Your task to perform on an android device: change notifications settings Image 0: 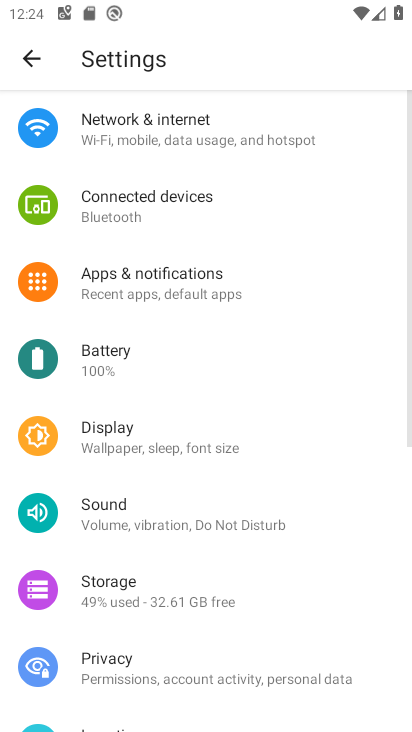
Step 0: press home button
Your task to perform on an android device: change notifications settings Image 1: 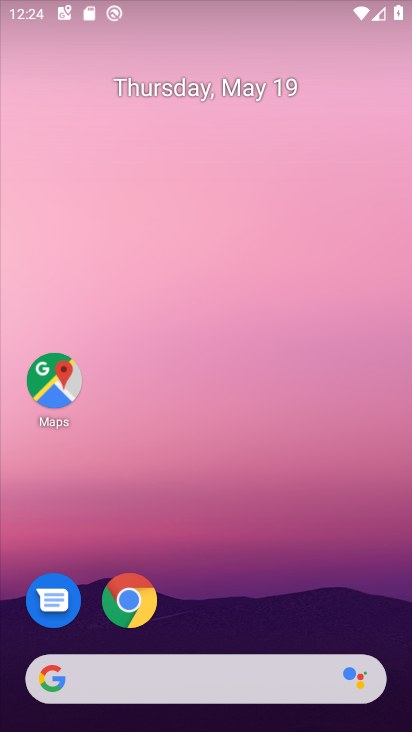
Step 1: drag from (261, 575) to (190, 56)
Your task to perform on an android device: change notifications settings Image 2: 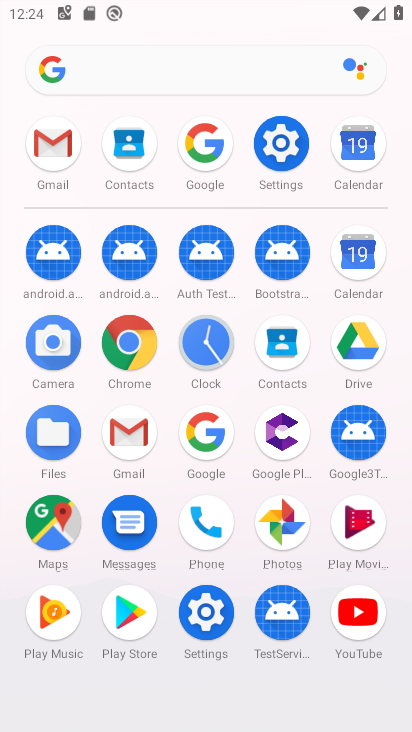
Step 2: click (263, 130)
Your task to perform on an android device: change notifications settings Image 3: 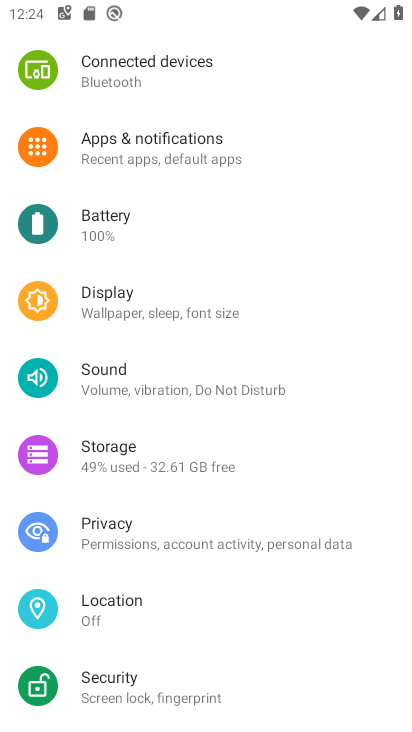
Step 3: click (229, 159)
Your task to perform on an android device: change notifications settings Image 4: 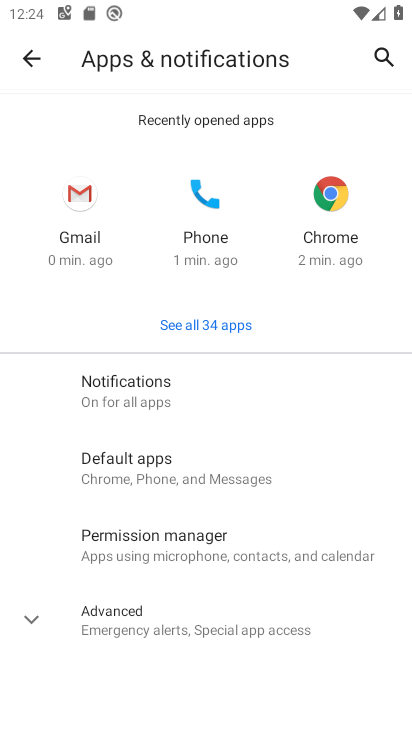
Step 4: click (270, 391)
Your task to perform on an android device: change notifications settings Image 5: 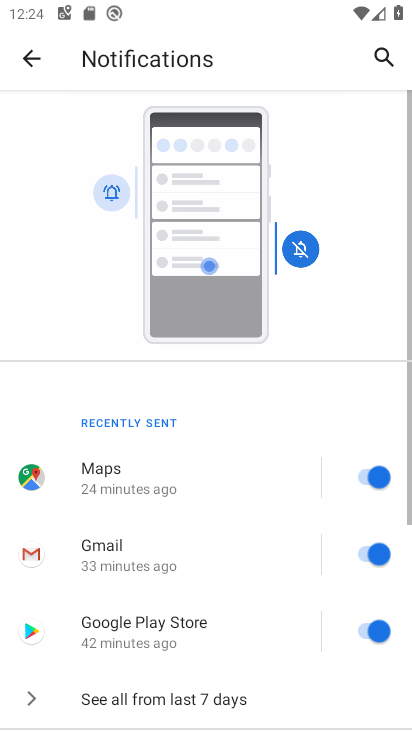
Step 5: click (371, 483)
Your task to perform on an android device: change notifications settings Image 6: 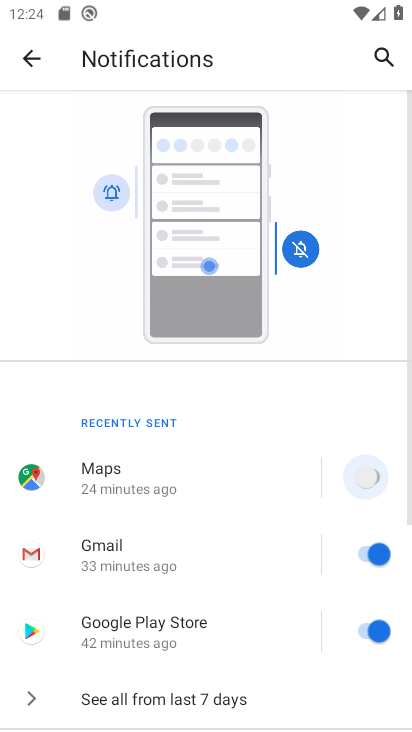
Step 6: click (363, 545)
Your task to perform on an android device: change notifications settings Image 7: 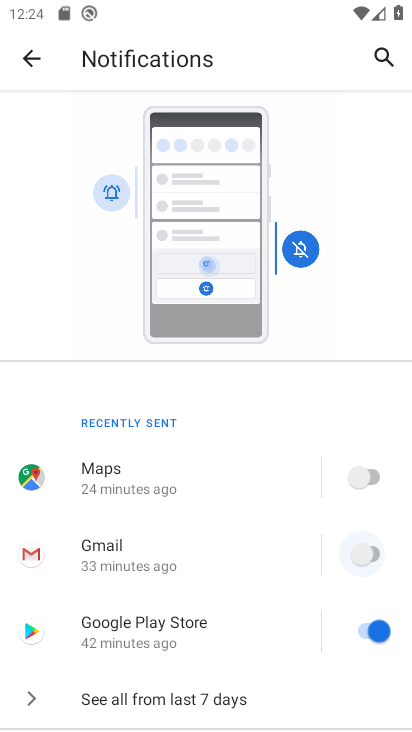
Step 7: click (378, 626)
Your task to perform on an android device: change notifications settings Image 8: 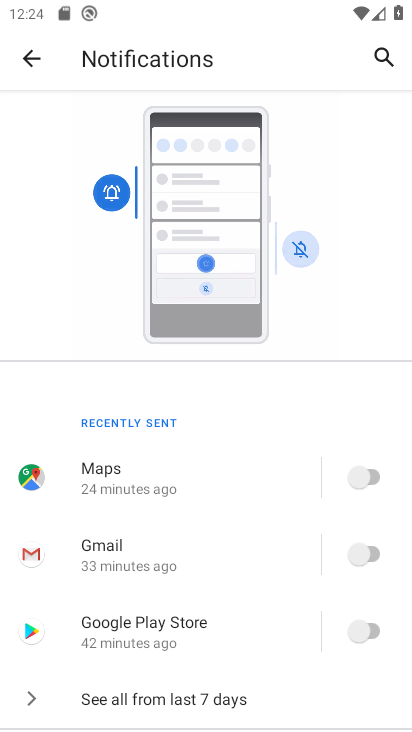
Step 8: task complete